Your task to perform on an android device: toggle data saver in the chrome app Image 0: 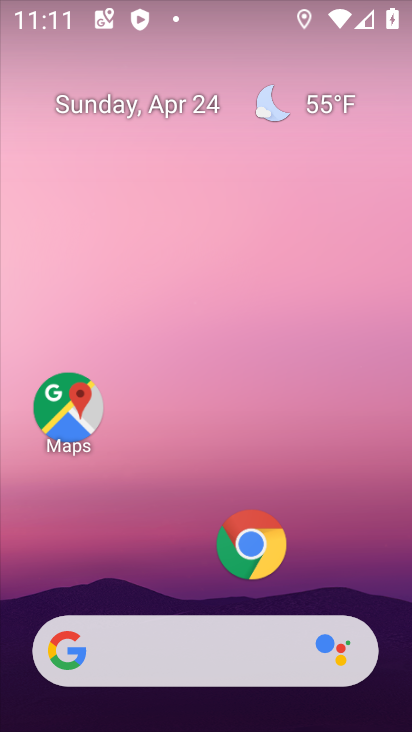
Step 0: click (234, 539)
Your task to perform on an android device: toggle data saver in the chrome app Image 1: 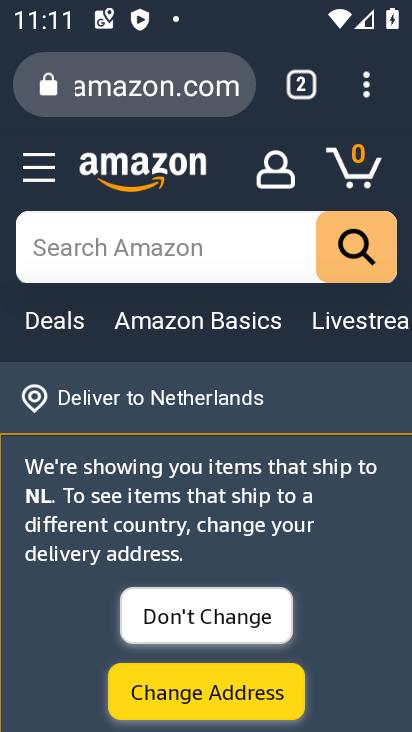
Step 1: drag from (362, 85) to (114, 582)
Your task to perform on an android device: toggle data saver in the chrome app Image 2: 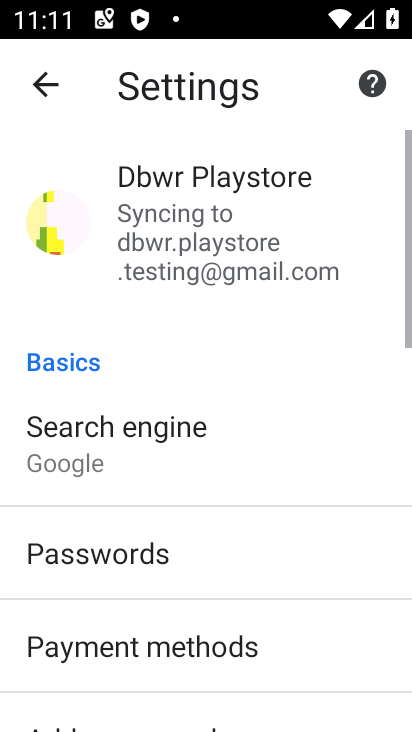
Step 2: drag from (176, 634) to (206, 273)
Your task to perform on an android device: toggle data saver in the chrome app Image 3: 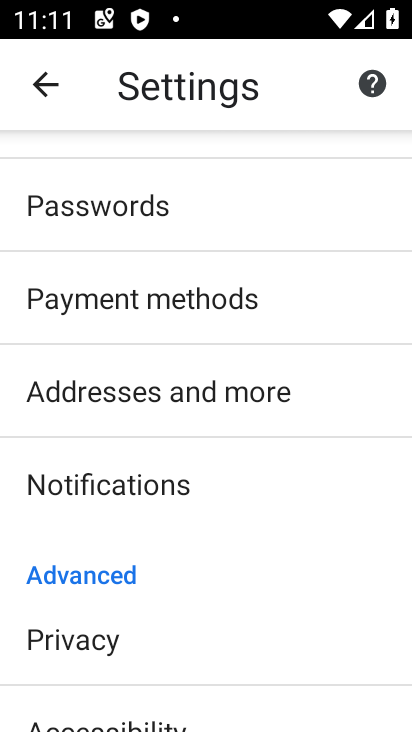
Step 3: drag from (235, 621) to (261, 381)
Your task to perform on an android device: toggle data saver in the chrome app Image 4: 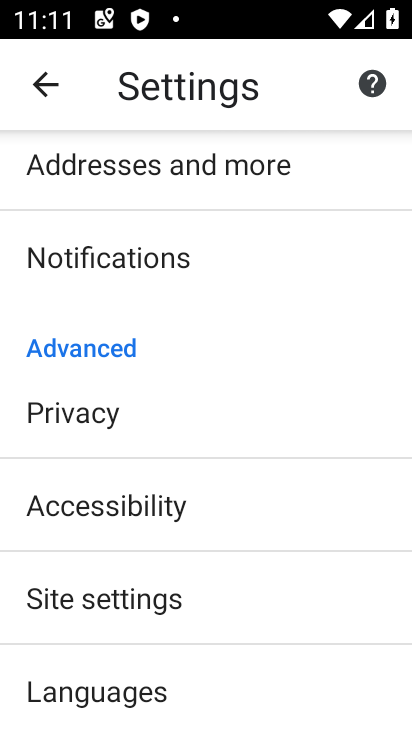
Step 4: drag from (208, 665) to (235, 417)
Your task to perform on an android device: toggle data saver in the chrome app Image 5: 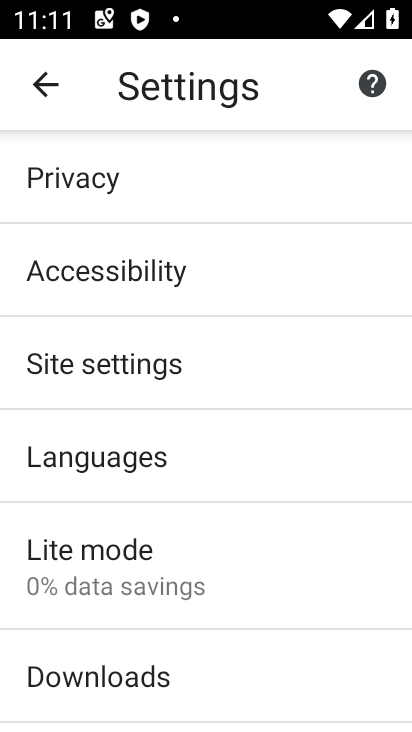
Step 5: click (144, 565)
Your task to perform on an android device: toggle data saver in the chrome app Image 6: 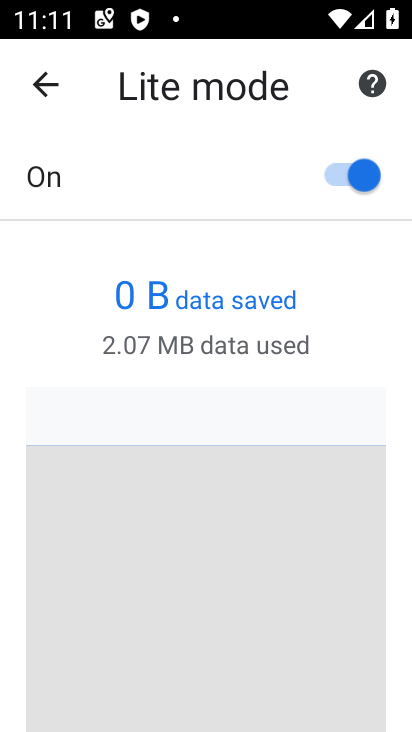
Step 6: click (337, 173)
Your task to perform on an android device: toggle data saver in the chrome app Image 7: 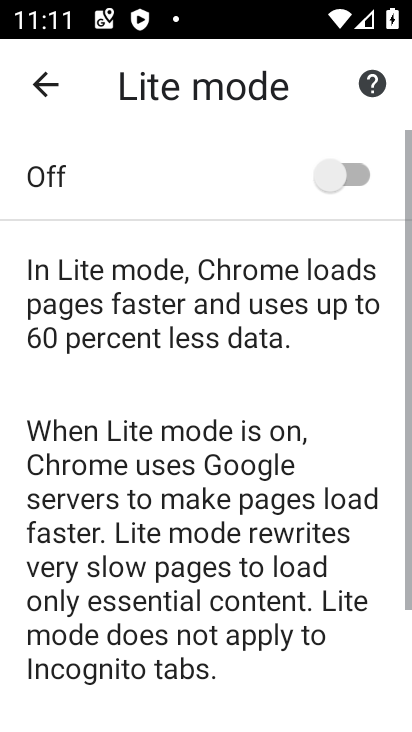
Step 7: task complete